Your task to perform on an android device: What's the weather going to be tomorrow? Image 0: 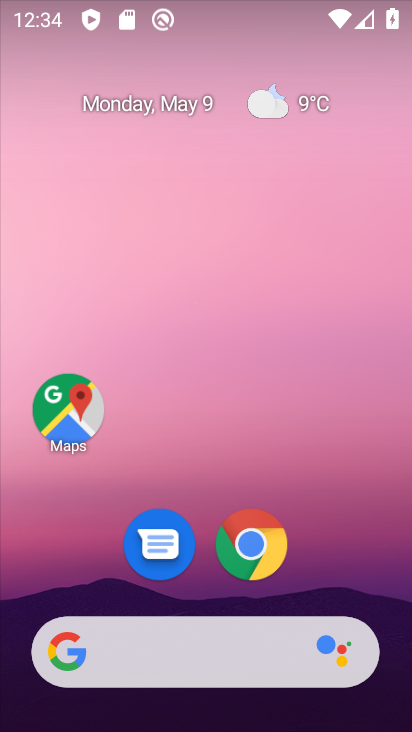
Step 0: click (310, 95)
Your task to perform on an android device: What's the weather going to be tomorrow? Image 1: 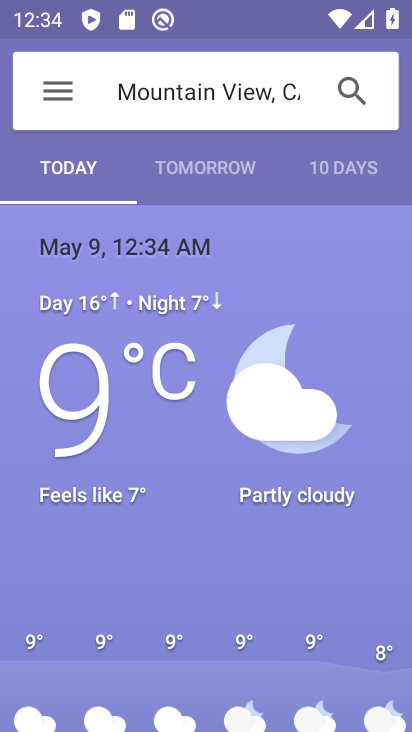
Step 1: click (189, 186)
Your task to perform on an android device: What's the weather going to be tomorrow? Image 2: 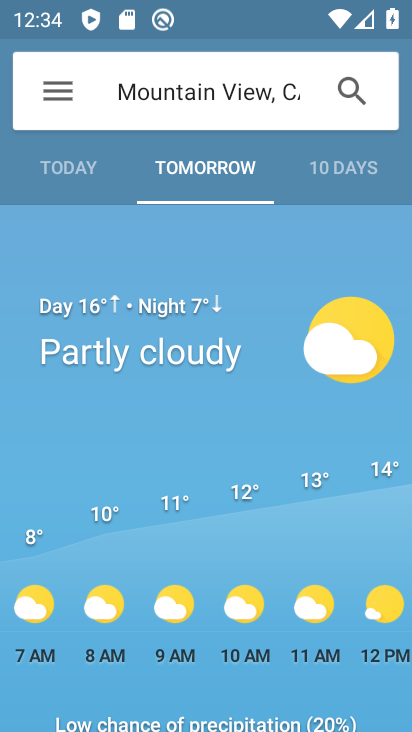
Step 2: task complete